Your task to perform on an android device: Open settings Image 0: 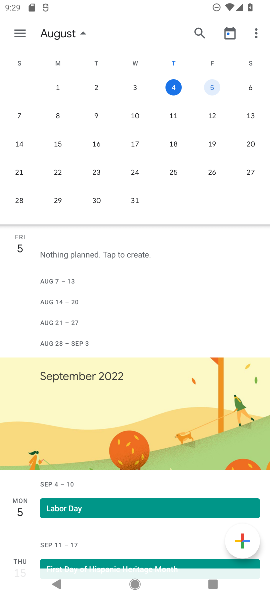
Step 0: press home button
Your task to perform on an android device: Open settings Image 1: 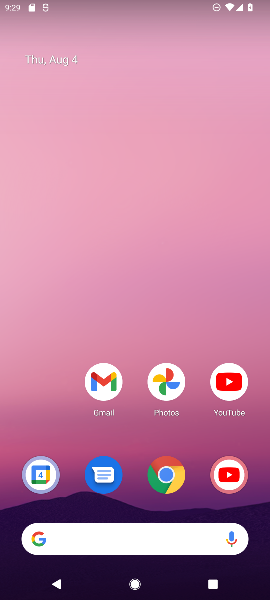
Step 1: drag from (129, 509) to (168, 156)
Your task to perform on an android device: Open settings Image 2: 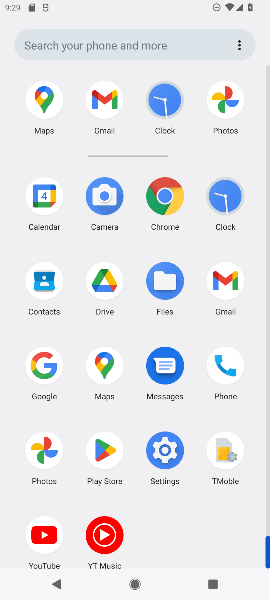
Step 2: click (172, 450)
Your task to perform on an android device: Open settings Image 3: 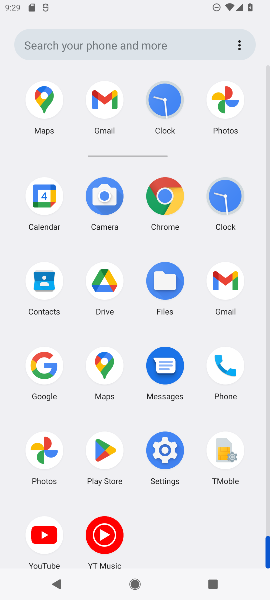
Step 3: click (171, 449)
Your task to perform on an android device: Open settings Image 4: 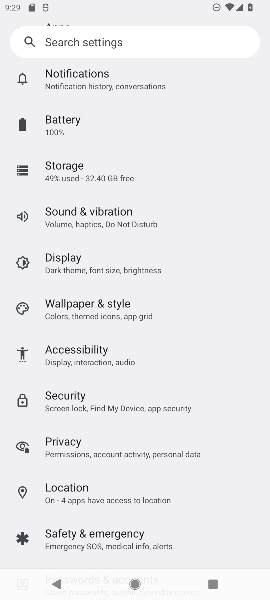
Step 4: task complete